Your task to perform on an android device: find snoozed emails in the gmail app Image 0: 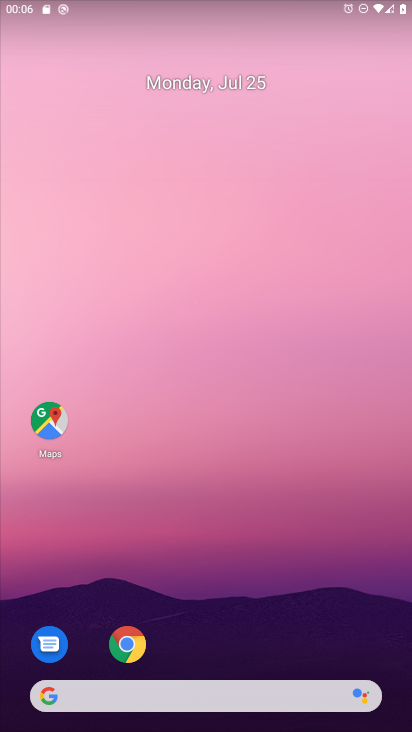
Step 0: drag from (377, 653) to (353, 102)
Your task to perform on an android device: find snoozed emails in the gmail app Image 1: 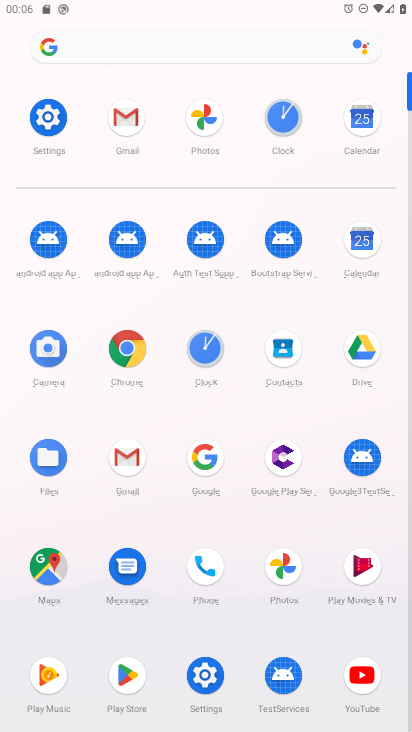
Step 1: click (124, 456)
Your task to perform on an android device: find snoozed emails in the gmail app Image 2: 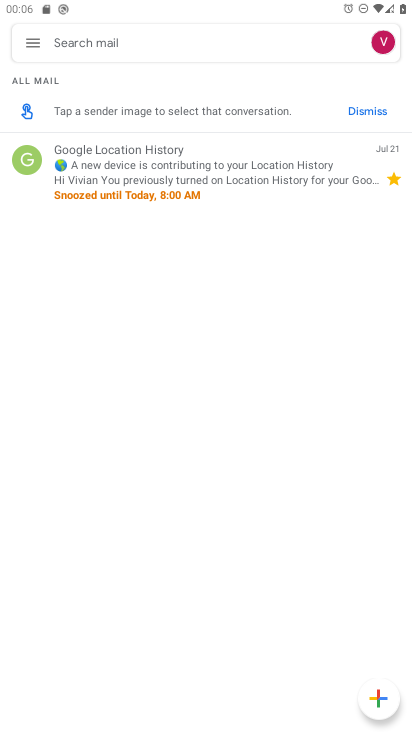
Step 2: click (33, 41)
Your task to perform on an android device: find snoozed emails in the gmail app Image 3: 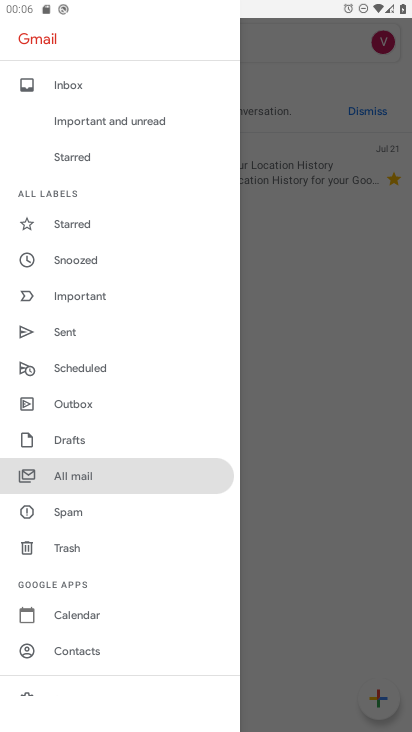
Step 3: click (72, 254)
Your task to perform on an android device: find snoozed emails in the gmail app Image 4: 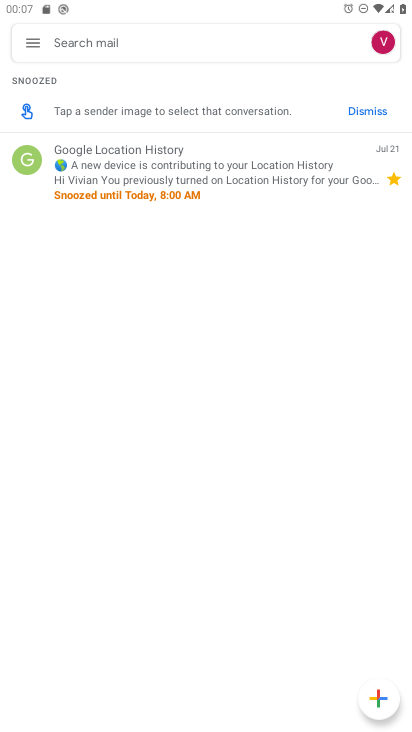
Step 4: click (31, 39)
Your task to perform on an android device: find snoozed emails in the gmail app Image 5: 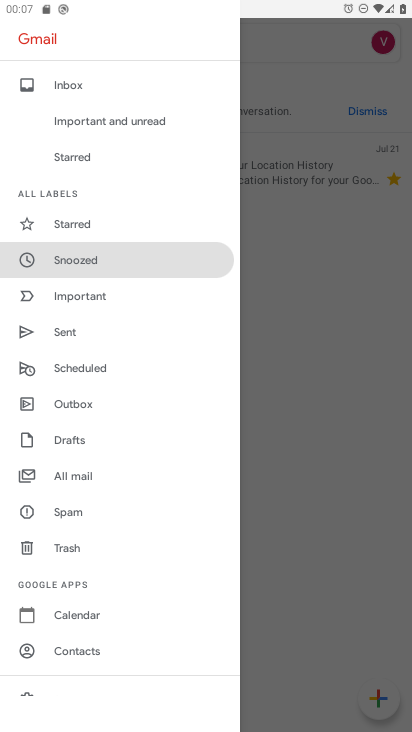
Step 5: task complete